Your task to perform on an android device: Go to Yahoo.com Image 0: 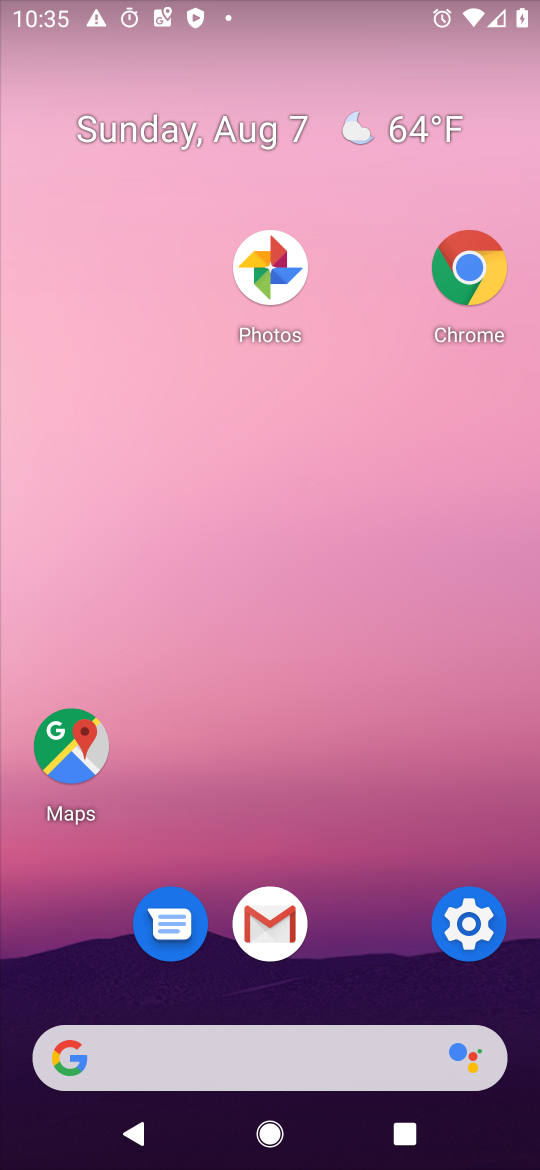
Step 0: press home button
Your task to perform on an android device: Go to Yahoo.com Image 1: 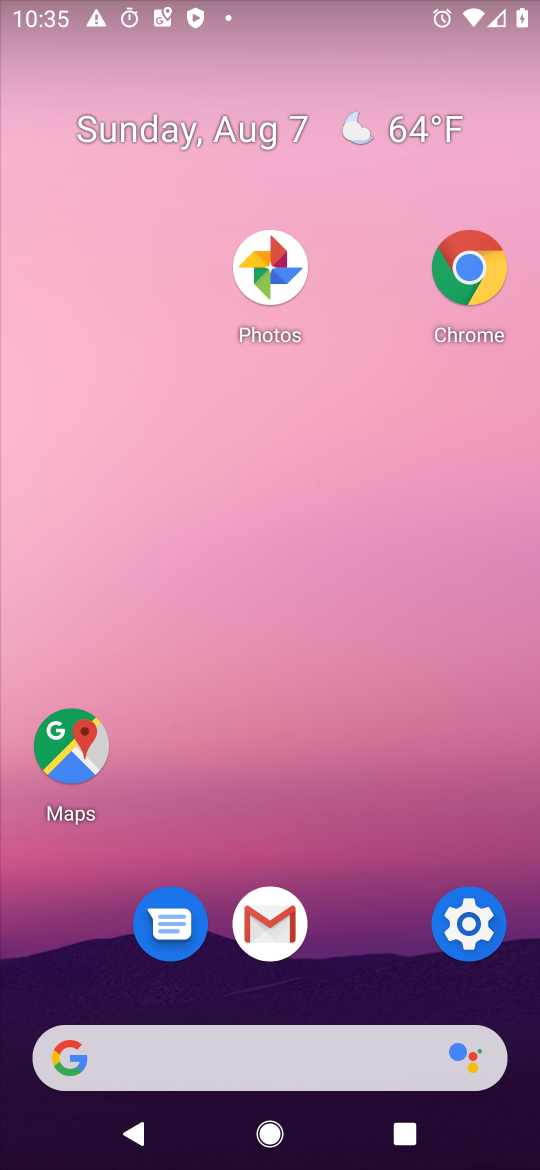
Step 1: drag from (376, 1064) to (364, 166)
Your task to perform on an android device: Go to Yahoo.com Image 2: 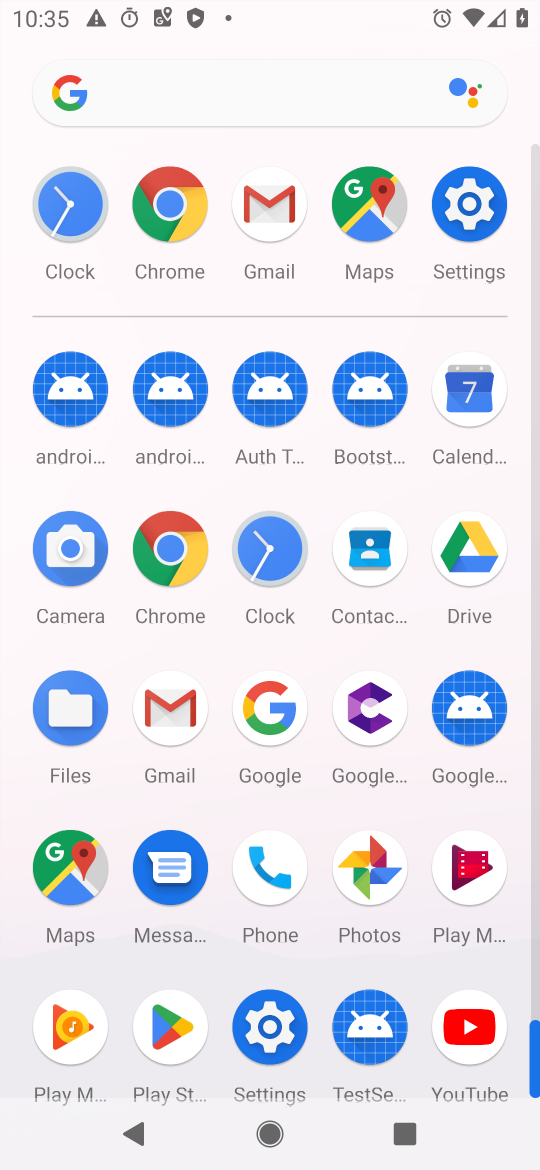
Step 2: click (155, 205)
Your task to perform on an android device: Go to Yahoo.com Image 3: 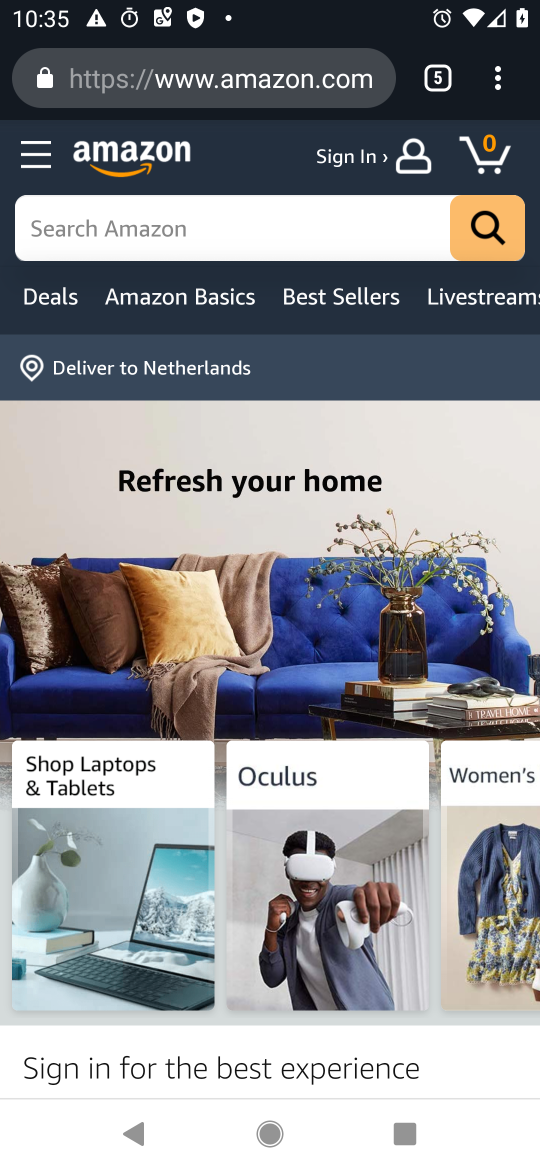
Step 3: click (443, 75)
Your task to perform on an android device: Go to Yahoo.com Image 4: 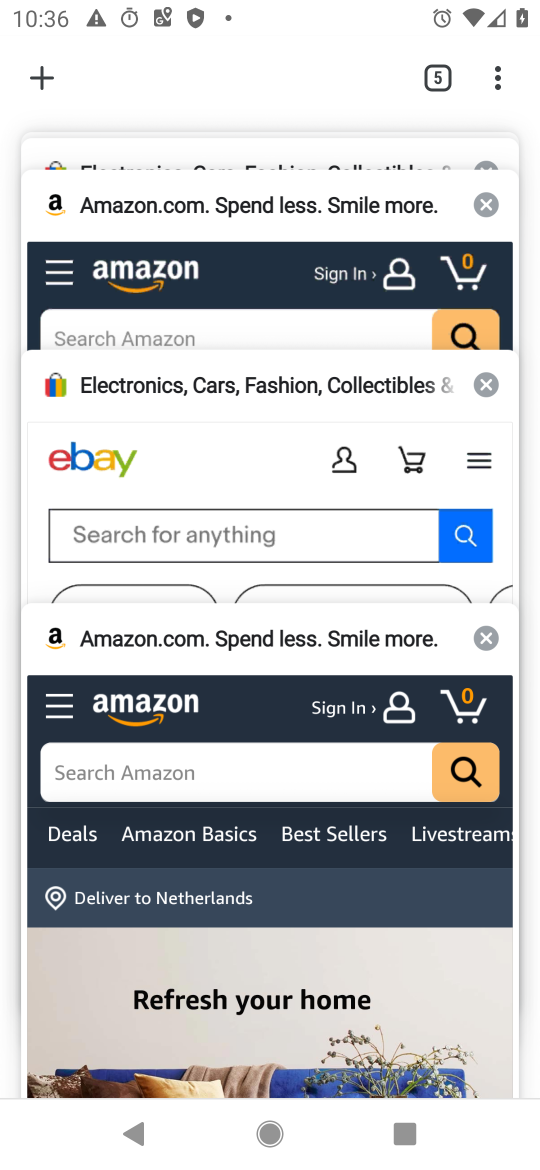
Step 4: click (42, 82)
Your task to perform on an android device: Go to Yahoo.com Image 5: 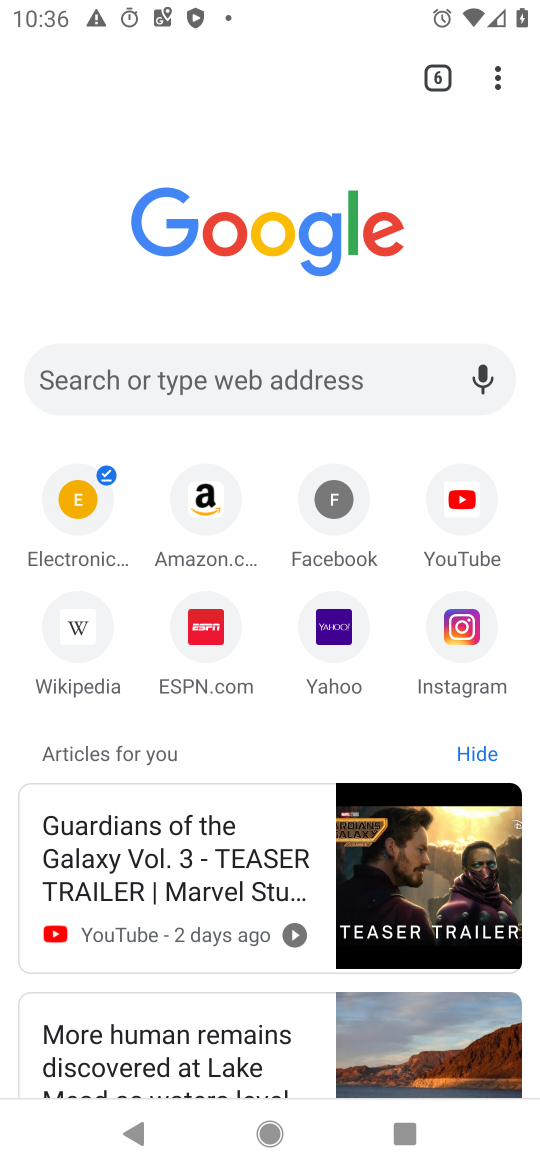
Step 5: click (329, 636)
Your task to perform on an android device: Go to Yahoo.com Image 6: 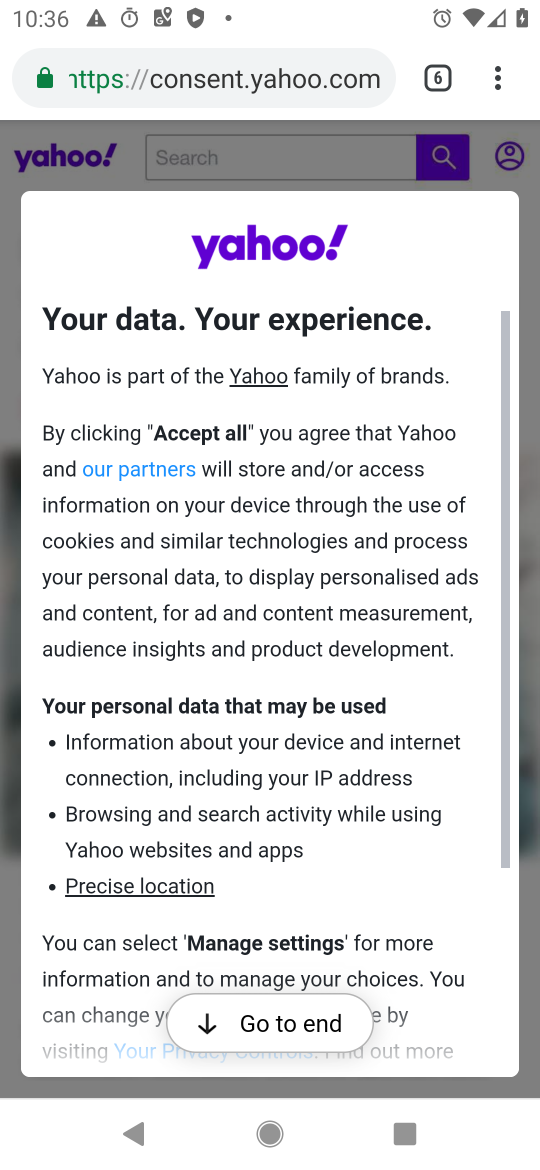
Step 6: drag from (386, 771) to (344, 319)
Your task to perform on an android device: Go to Yahoo.com Image 7: 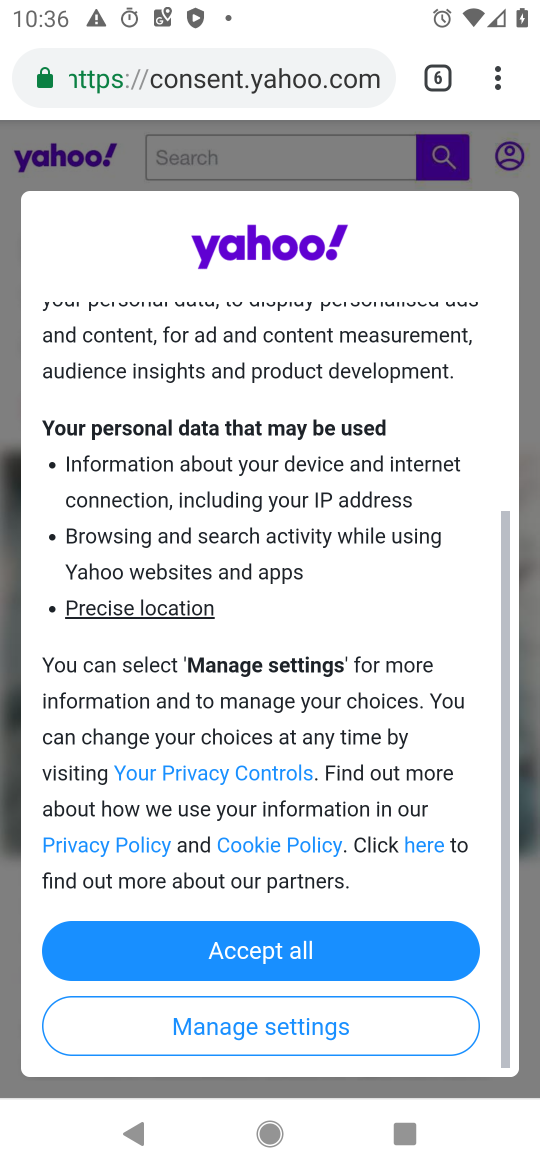
Step 7: click (332, 959)
Your task to perform on an android device: Go to Yahoo.com Image 8: 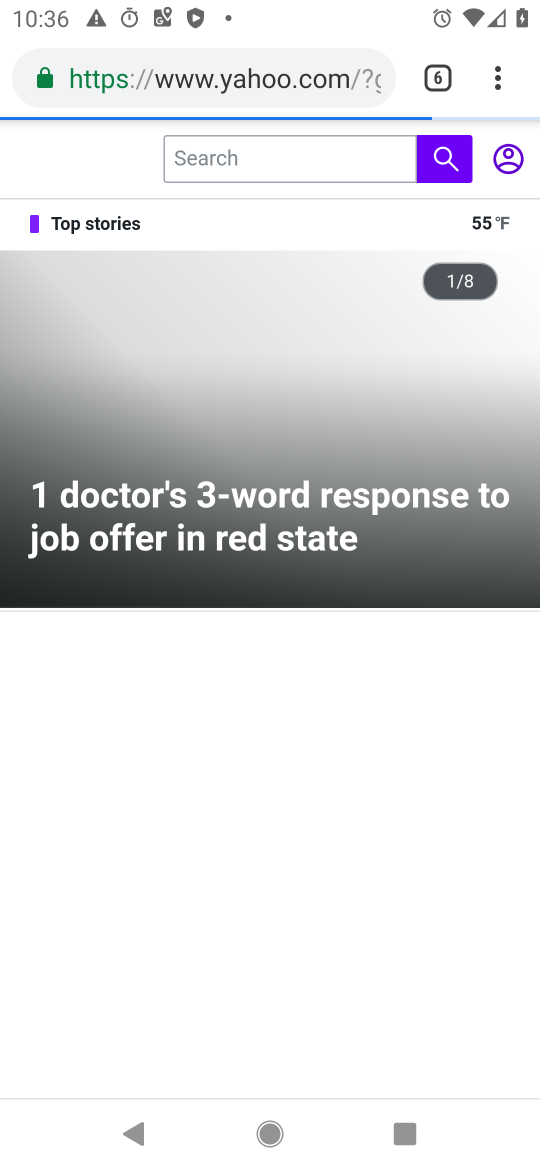
Step 8: task complete